Your task to perform on an android device: allow notifications from all sites in the chrome app Image 0: 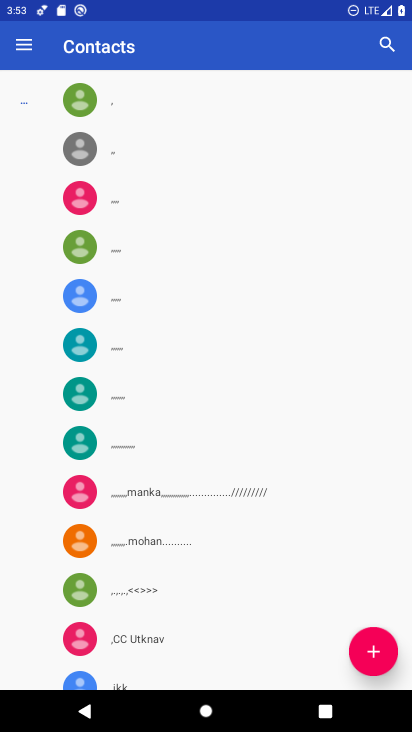
Step 0: press home button
Your task to perform on an android device: allow notifications from all sites in the chrome app Image 1: 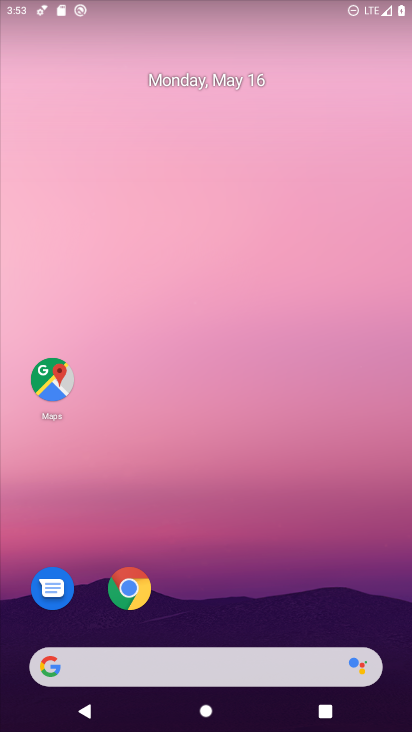
Step 1: click (140, 597)
Your task to perform on an android device: allow notifications from all sites in the chrome app Image 2: 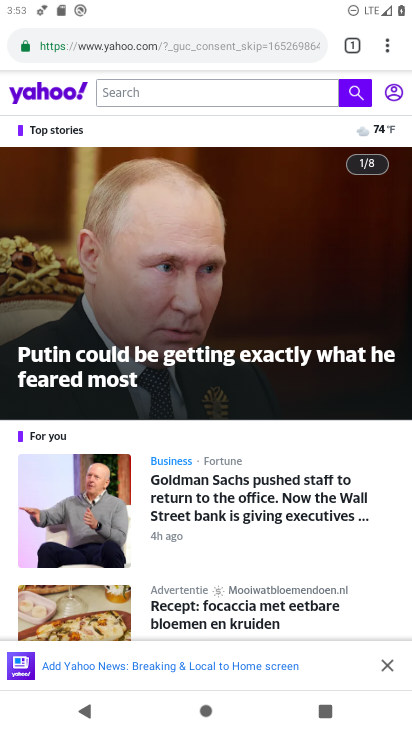
Step 2: click (385, 47)
Your task to perform on an android device: allow notifications from all sites in the chrome app Image 3: 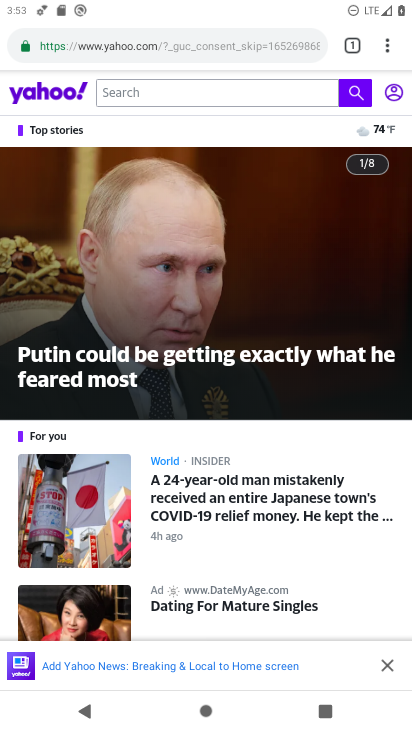
Step 3: click (388, 53)
Your task to perform on an android device: allow notifications from all sites in the chrome app Image 4: 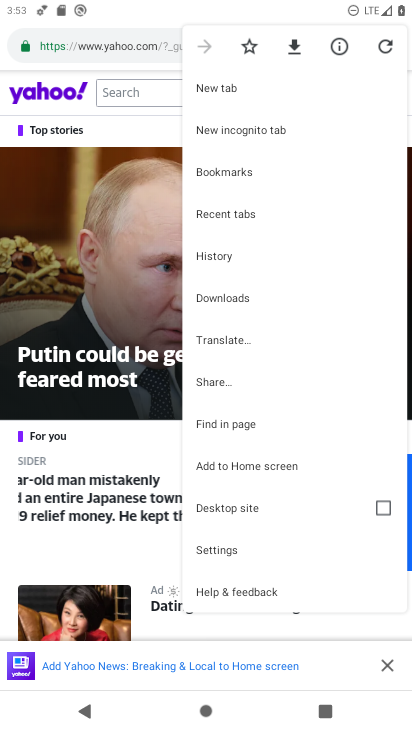
Step 4: click (223, 555)
Your task to perform on an android device: allow notifications from all sites in the chrome app Image 5: 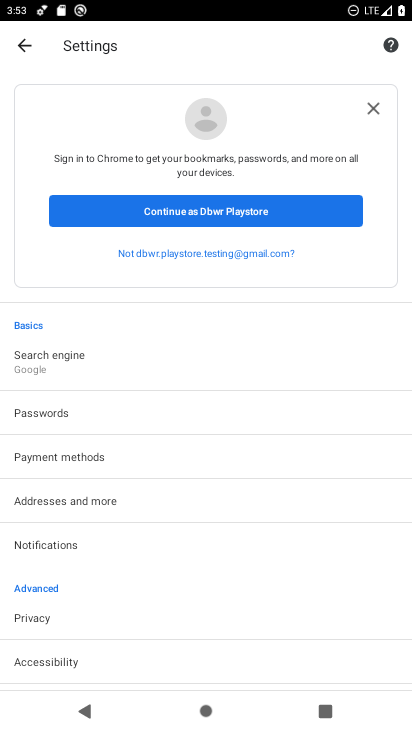
Step 5: drag from (119, 571) to (113, 312)
Your task to perform on an android device: allow notifications from all sites in the chrome app Image 6: 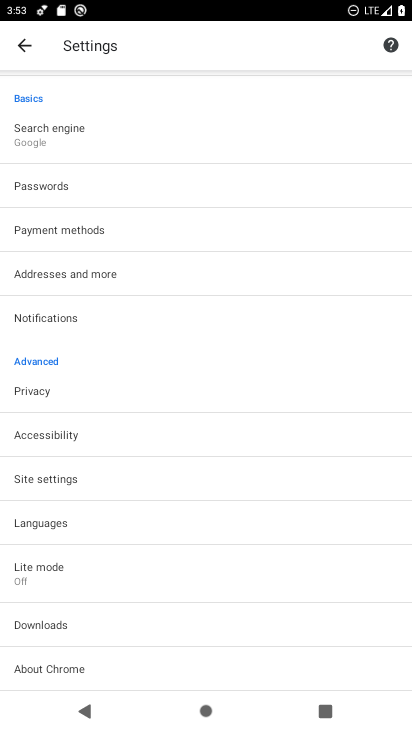
Step 6: click (70, 473)
Your task to perform on an android device: allow notifications from all sites in the chrome app Image 7: 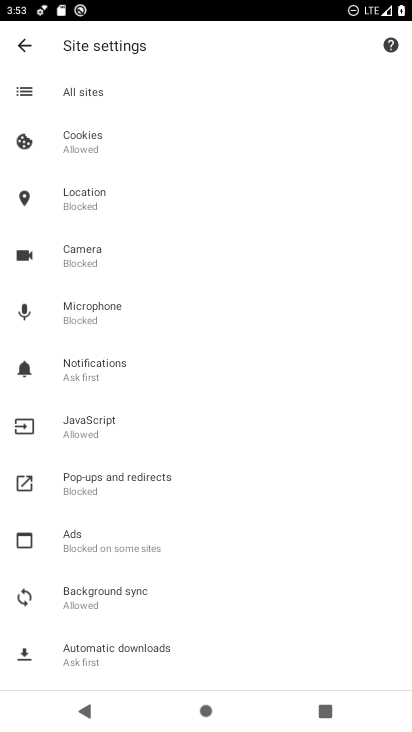
Step 7: click (89, 382)
Your task to perform on an android device: allow notifications from all sites in the chrome app Image 8: 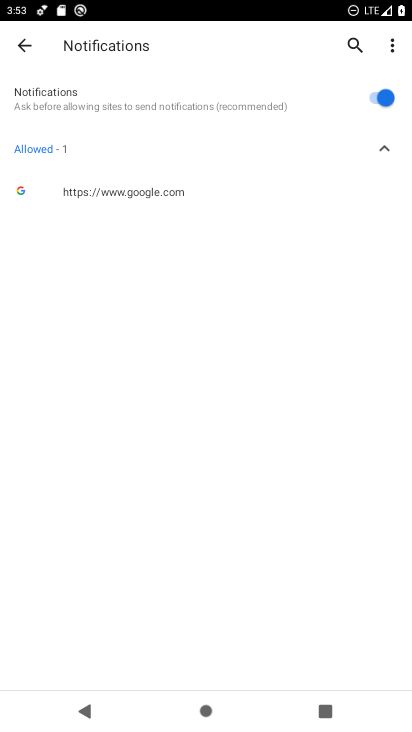
Step 8: task complete